Your task to perform on an android device: Open CNN.com Image 0: 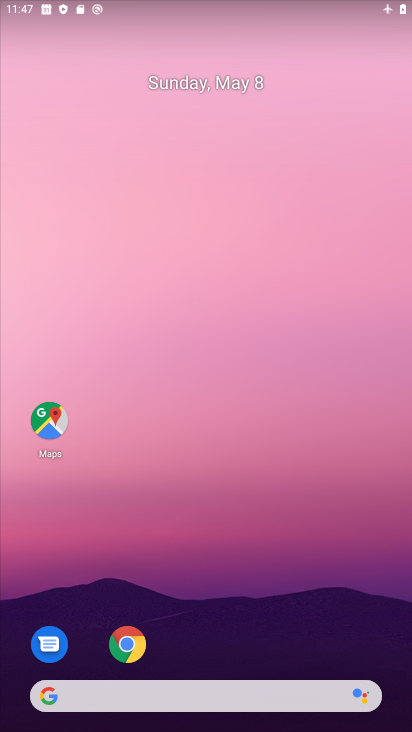
Step 0: drag from (180, 658) to (188, 329)
Your task to perform on an android device: Open CNN.com Image 1: 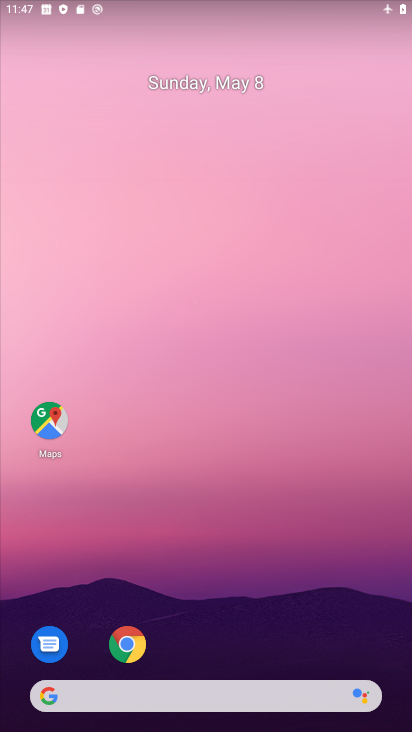
Step 1: drag from (183, 649) to (179, 266)
Your task to perform on an android device: Open CNN.com Image 2: 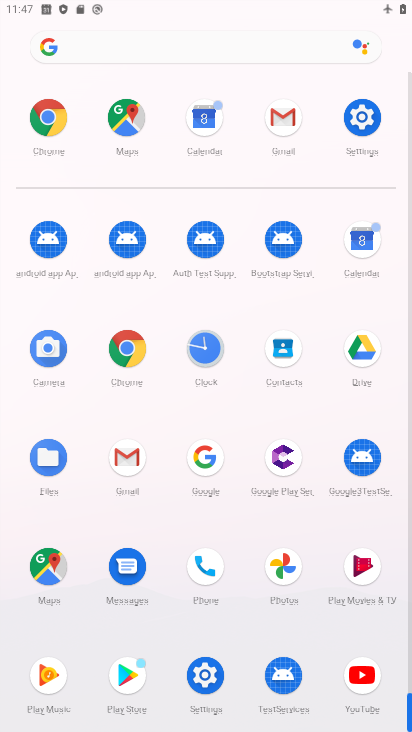
Step 2: click (135, 348)
Your task to perform on an android device: Open CNN.com Image 3: 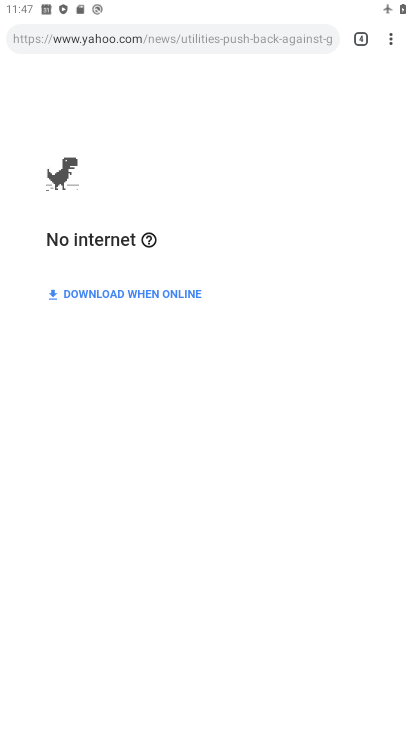
Step 3: click (146, 39)
Your task to perform on an android device: Open CNN.com Image 4: 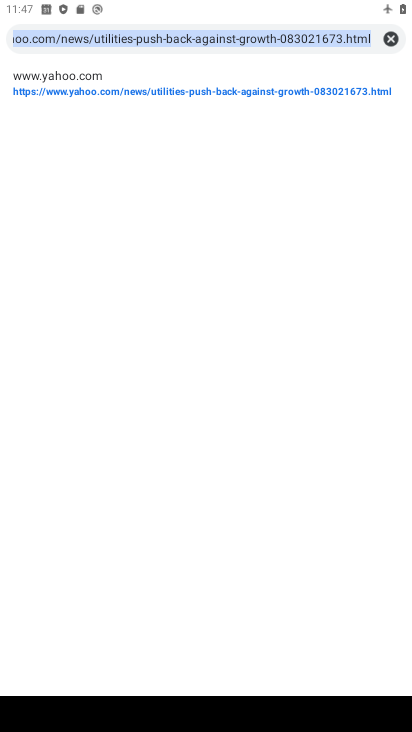
Step 4: click (384, 42)
Your task to perform on an android device: Open CNN.com Image 5: 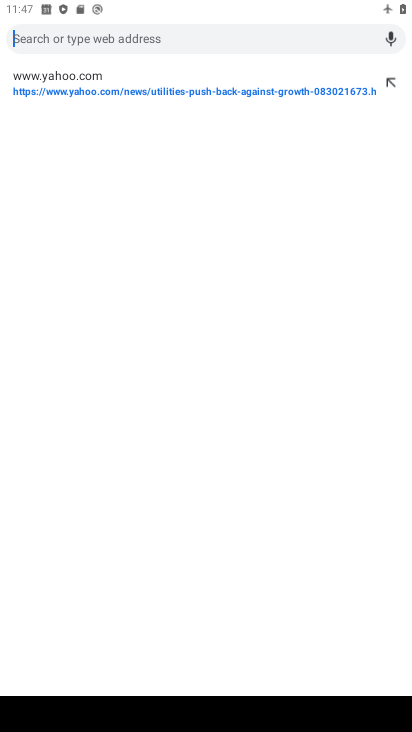
Step 5: type "cnn"
Your task to perform on an android device: Open CNN.com Image 6: 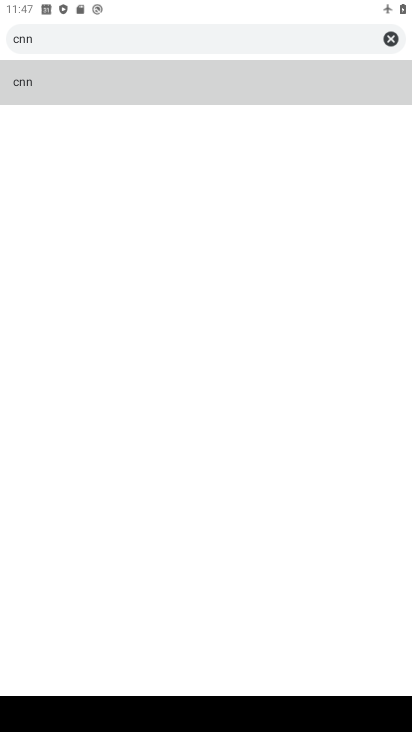
Step 6: click (19, 84)
Your task to perform on an android device: Open CNN.com Image 7: 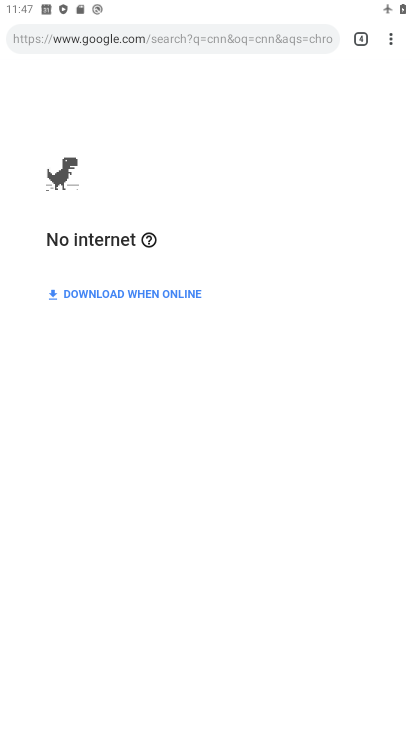
Step 7: task complete